Your task to perform on an android device: delete browsing data in the chrome app Image 0: 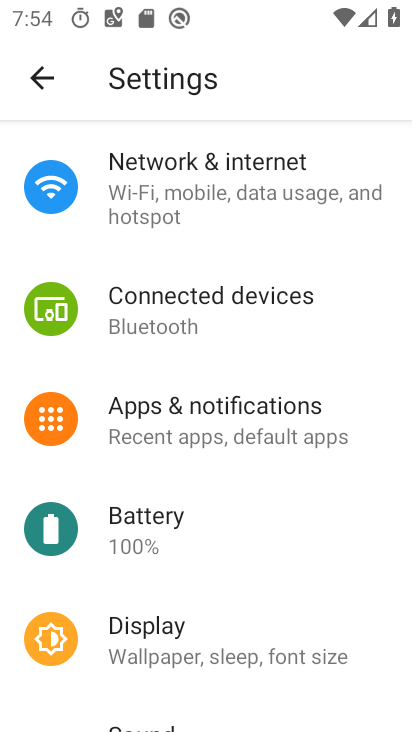
Step 0: press home button
Your task to perform on an android device: delete browsing data in the chrome app Image 1: 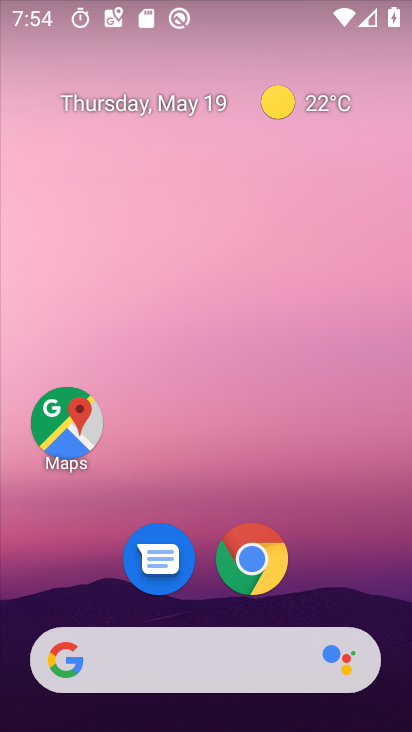
Step 1: click (265, 561)
Your task to perform on an android device: delete browsing data in the chrome app Image 2: 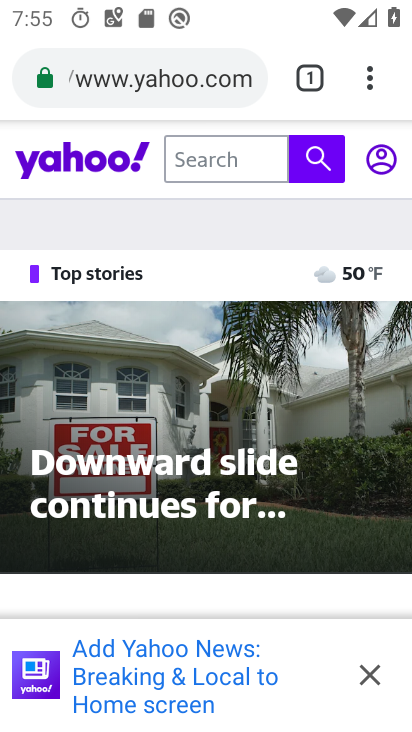
Step 2: click (368, 73)
Your task to perform on an android device: delete browsing data in the chrome app Image 3: 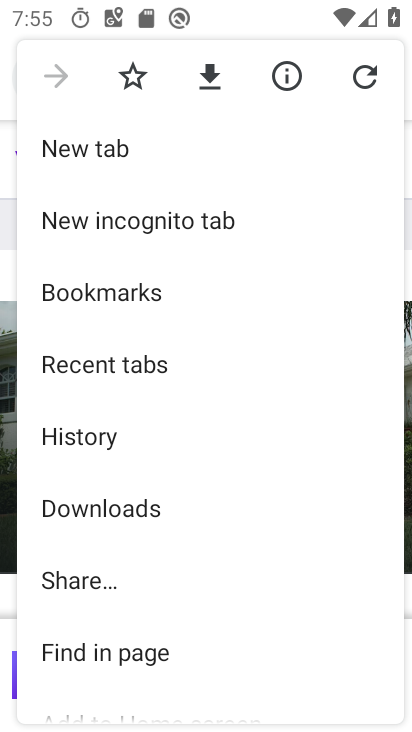
Step 3: click (113, 437)
Your task to perform on an android device: delete browsing data in the chrome app Image 4: 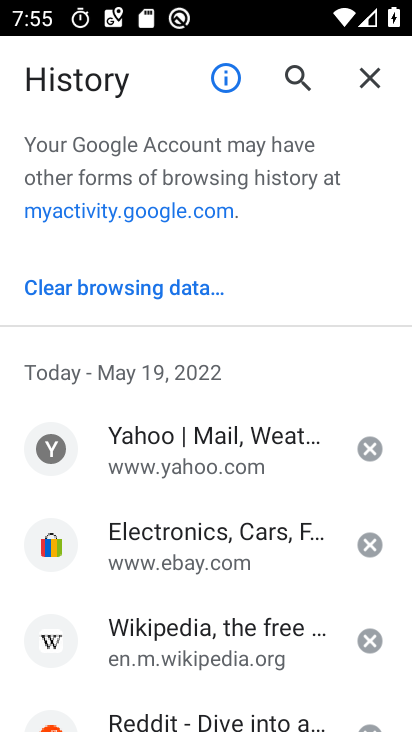
Step 4: click (85, 287)
Your task to perform on an android device: delete browsing data in the chrome app Image 5: 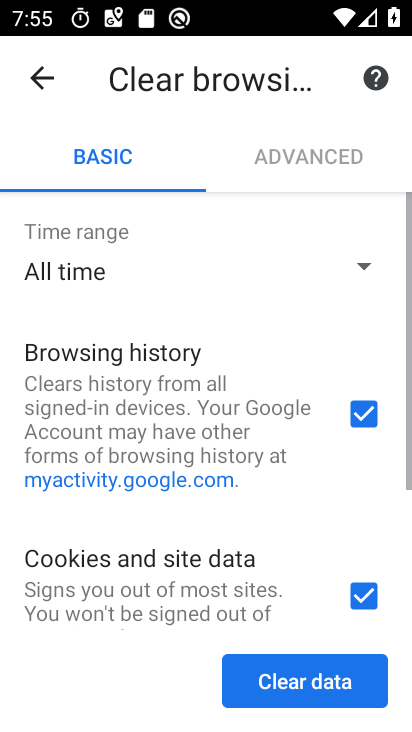
Step 5: click (291, 679)
Your task to perform on an android device: delete browsing data in the chrome app Image 6: 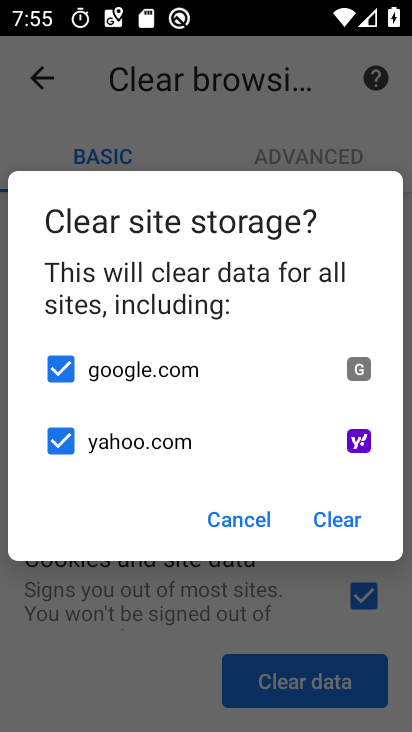
Step 6: click (339, 524)
Your task to perform on an android device: delete browsing data in the chrome app Image 7: 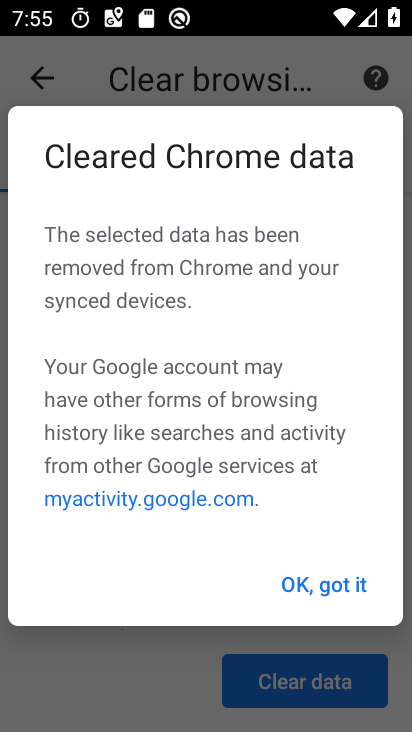
Step 7: click (312, 585)
Your task to perform on an android device: delete browsing data in the chrome app Image 8: 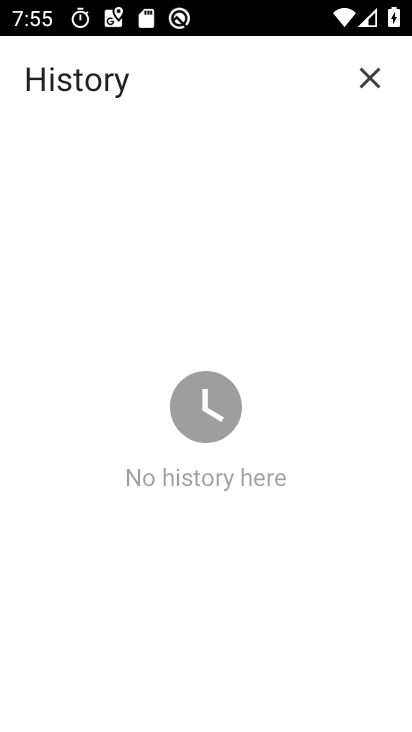
Step 8: task complete